Your task to perform on an android device: toggle translation in the chrome app Image 0: 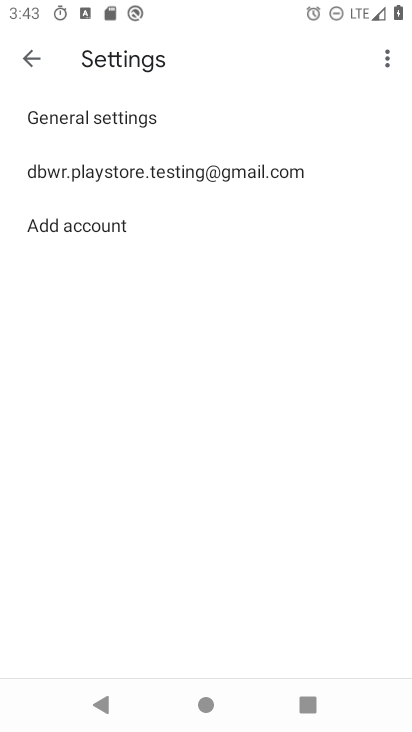
Step 0: press home button
Your task to perform on an android device: toggle translation in the chrome app Image 1: 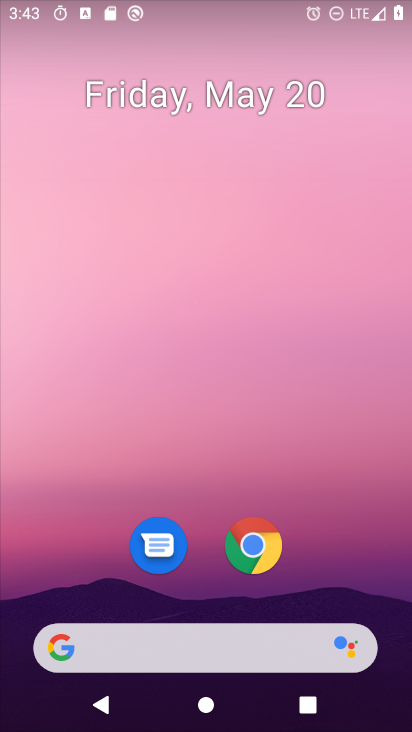
Step 1: drag from (291, 631) to (354, 41)
Your task to perform on an android device: toggle translation in the chrome app Image 2: 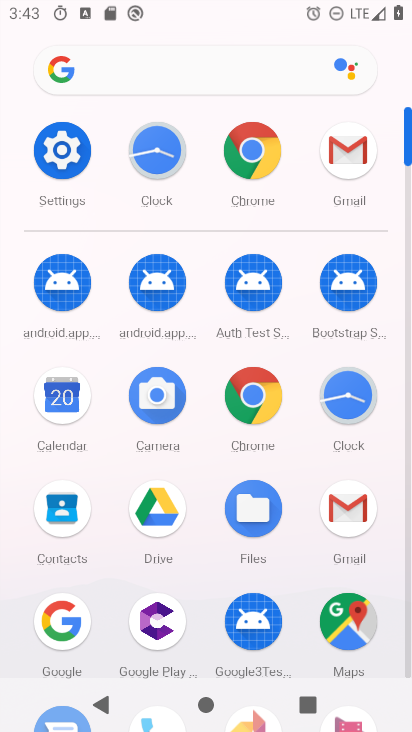
Step 2: click (260, 392)
Your task to perform on an android device: toggle translation in the chrome app Image 3: 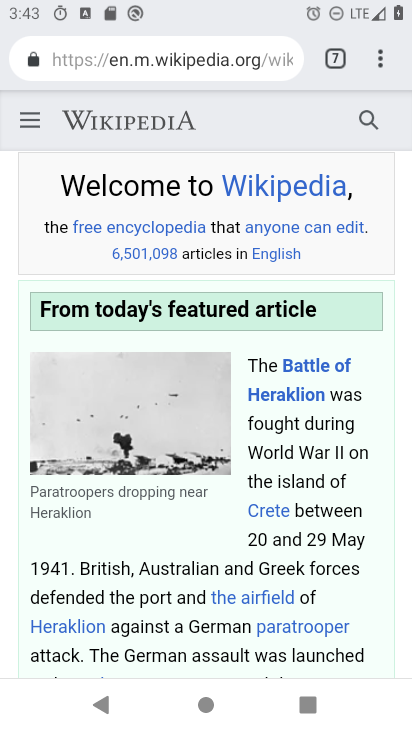
Step 3: drag from (379, 46) to (191, 579)
Your task to perform on an android device: toggle translation in the chrome app Image 4: 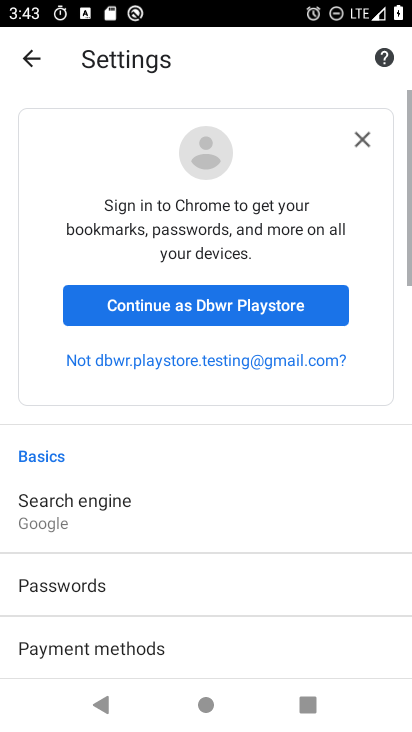
Step 4: drag from (253, 631) to (270, 199)
Your task to perform on an android device: toggle translation in the chrome app Image 5: 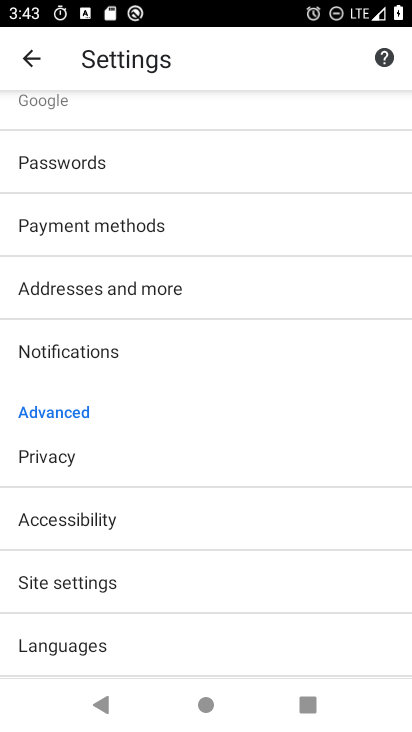
Step 5: click (80, 583)
Your task to perform on an android device: toggle translation in the chrome app Image 6: 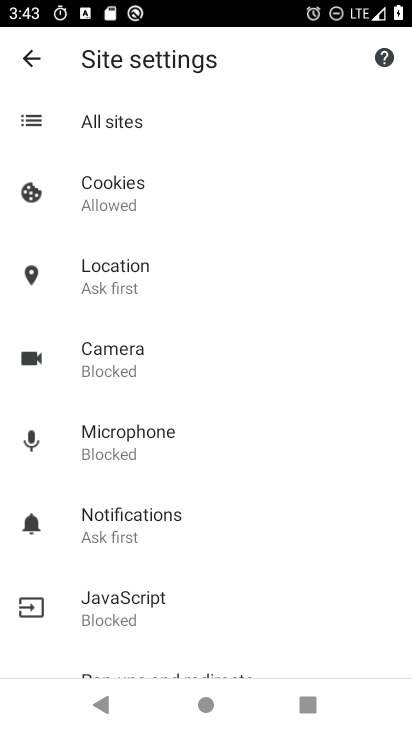
Step 6: press back button
Your task to perform on an android device: toggle translation in the chrome app Image 7: 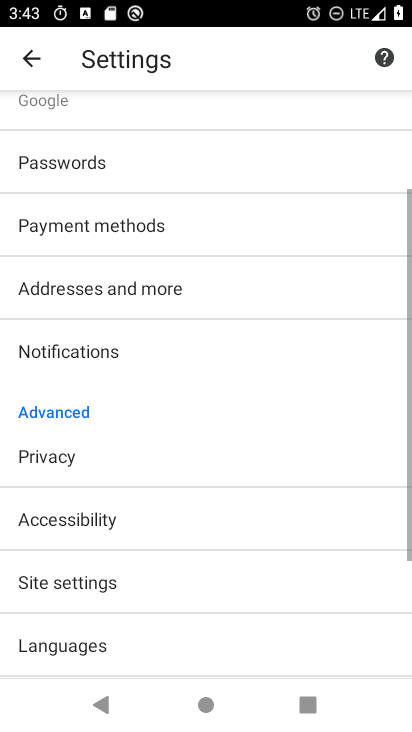
Step 7: click (258, 654)
Your task to perform on an android device: toggle translation in the chrome app Image 8: 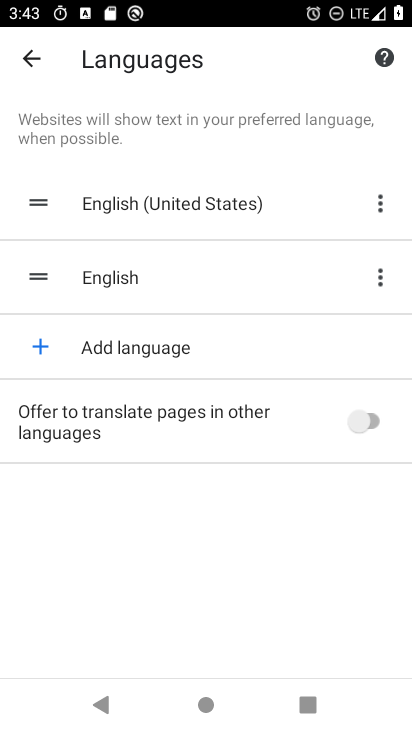
Step 8: click (370, 419)
Your task to perform on an android device: toggle translation in the chrome app Image 9: 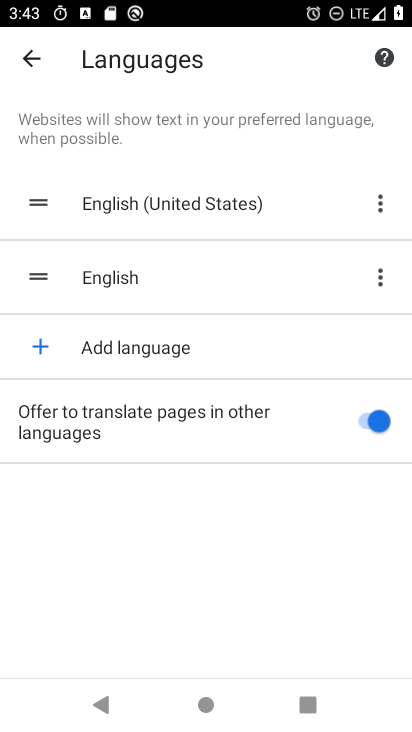
Step 9: task complete